Your task to perform on an android device: Search for alienware area 51 on amazon.com, select the first entry, add it to the cart, then select checkout. Image 0: 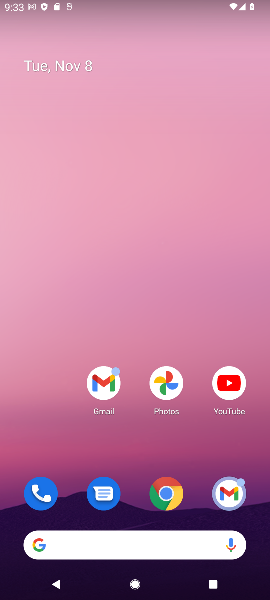
Step 0: click (169, 495)
Your task to perform on an android device: Search for alienware area 51 on amazon.com, select the first entry, add it to the cart, then select checkout. Image 1: 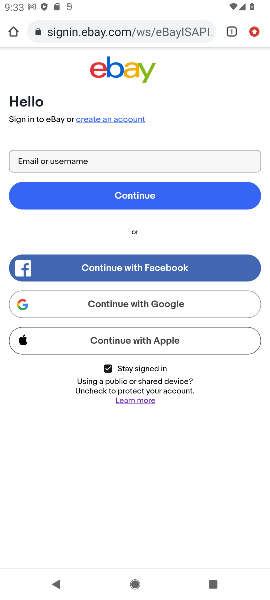
Step 1: click (106, 40)
Your task to perform on an android device: Search for alienware area 51 on amazon.com, select the first entry, add it to the cart, then select checkout. Image 2: 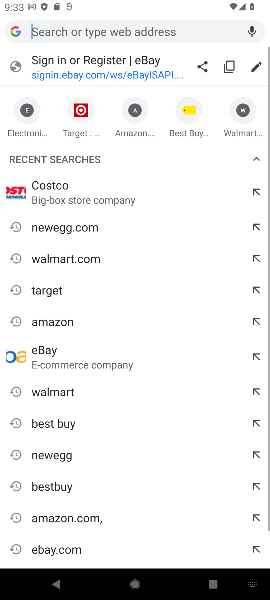
Step 2: click (128, 123)
Your task to perform on an android device: Search for alienware area 51 on amazon.com, select the first entry, add it to the cart, then select checkout. Image 3: 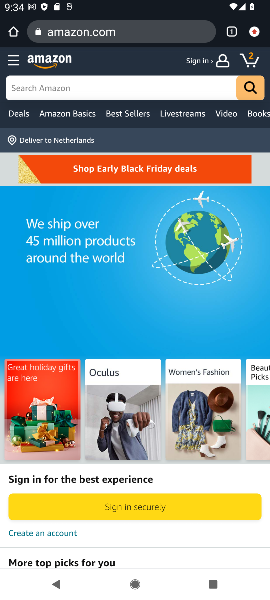
Step 3: click (78, 86)
Your task to perform on an android device: Search for alienware area 51 on amazon.com, select the first entry, add it to the cart, then select checkout. Image 4: 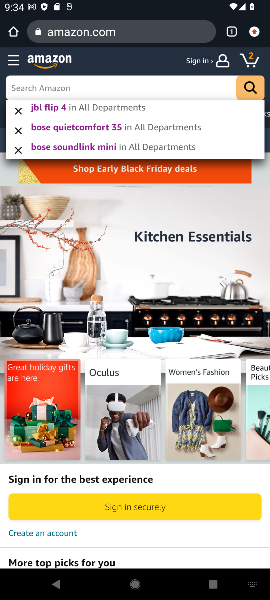
Step 4: type "alienware area 51"
Your task to perform on an android device: Search for alienware area 51 on amazon.com, select the first entry, add it to the cart, then select checkout. Image 5: 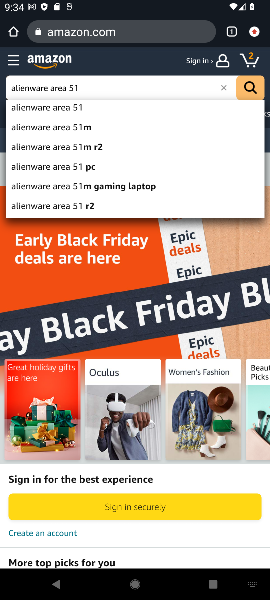
Step 5: click (69, 111)
Your task to perform on an android device: Search for alienware area 51 on amazon.com, select the first entry, add it to the cart, then select checkout. Image 6: 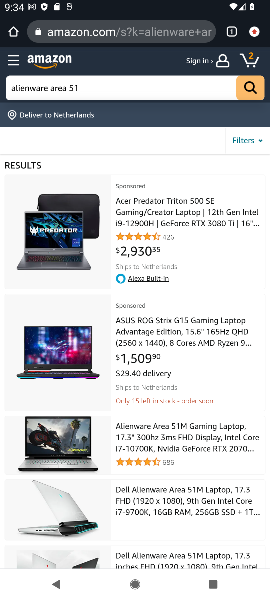
Step 6: task complete